Your task to perform on an android device: Open Chrome and go to the settings page Image 0: 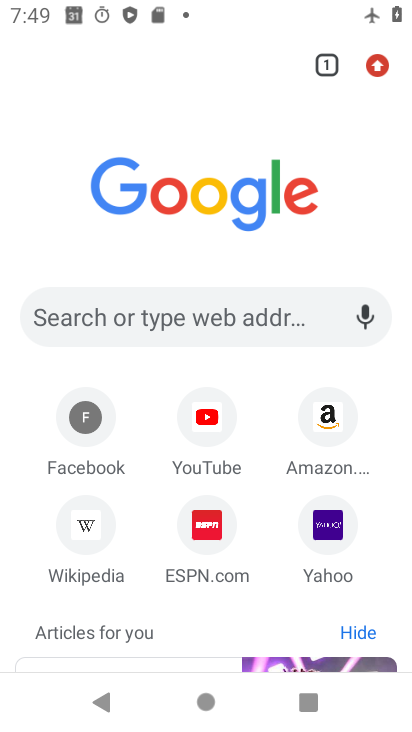
Step 0: press home button
Your task to perform on an android device: Open Chrome and go to the settings page Image 1: 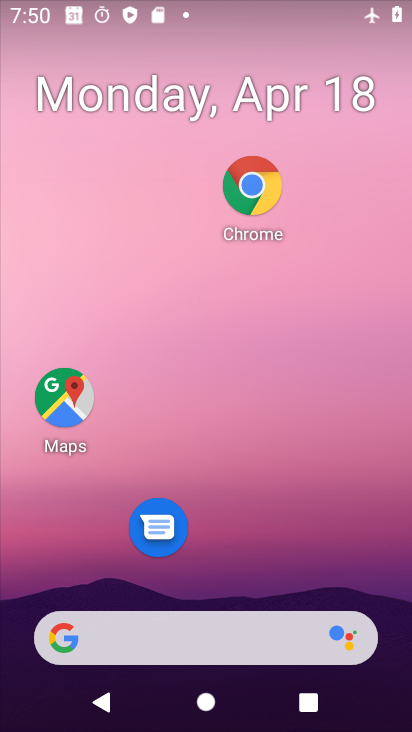
Step 1: click (241, 182)
Your task to perform on an android device: Open Chrome and go to the settings page Image 2: 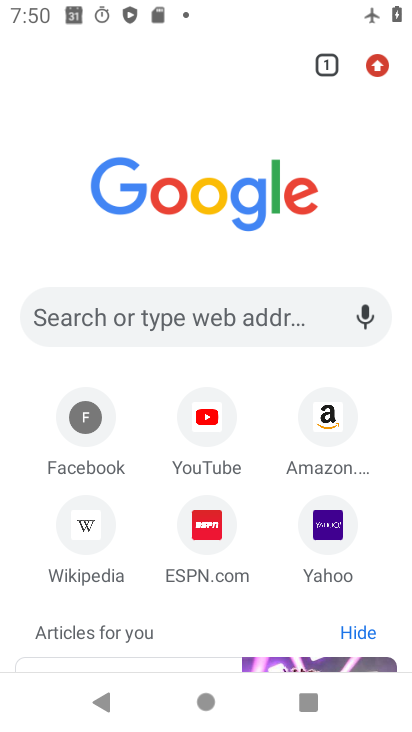
Step 2: click (375, 59)
Your task to perform on an android device: Open Chrome and go to the settings page Image 3: 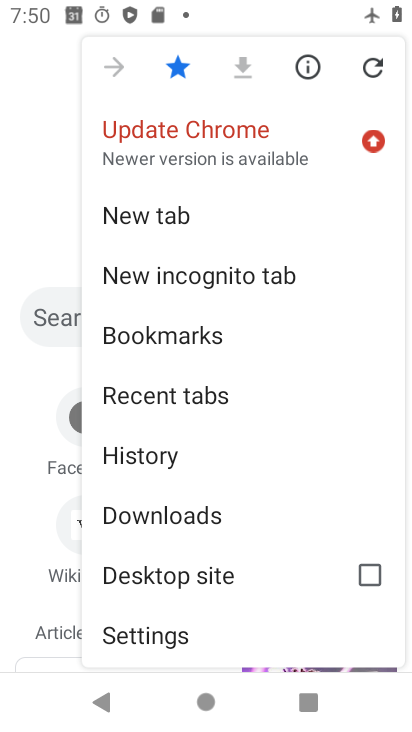
Step 3: click (161, 628)
Your task to perform on an android device: Open Chrome and go to the settings page Image 4: 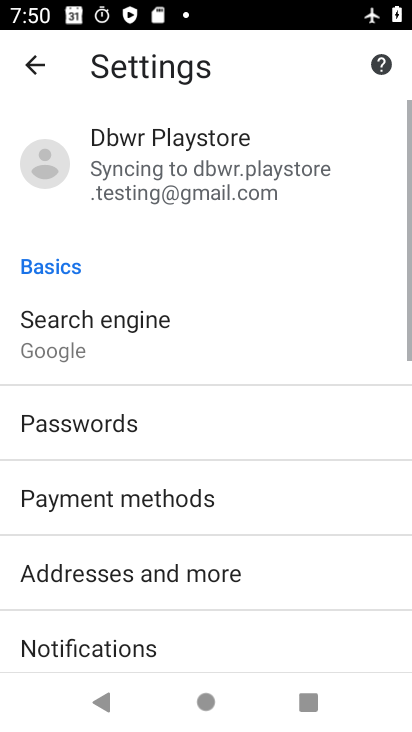
Step 4: task complete